Your task to perform on an android device: Go to Google Image 0: 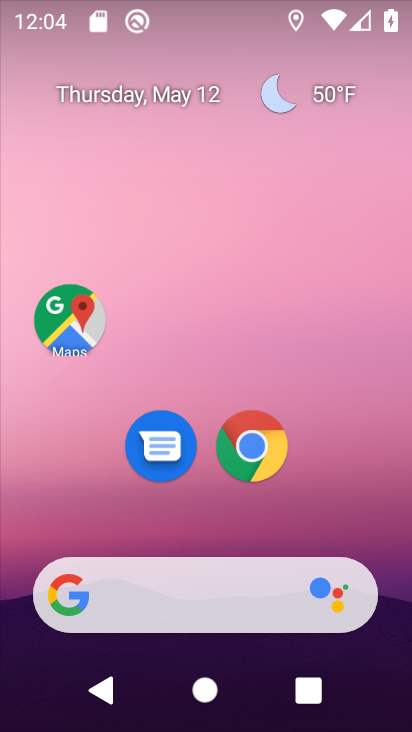
Step 0: drag from (290, 512) to (295, 93)
Your task to perform on an android device: Go to Google Image 1: 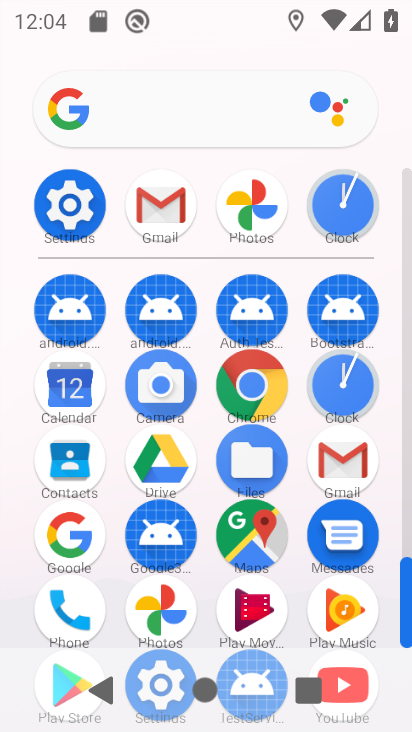
Step 1: click (68, 547)
Your task to perform on an android device: Go to Google Image 2: 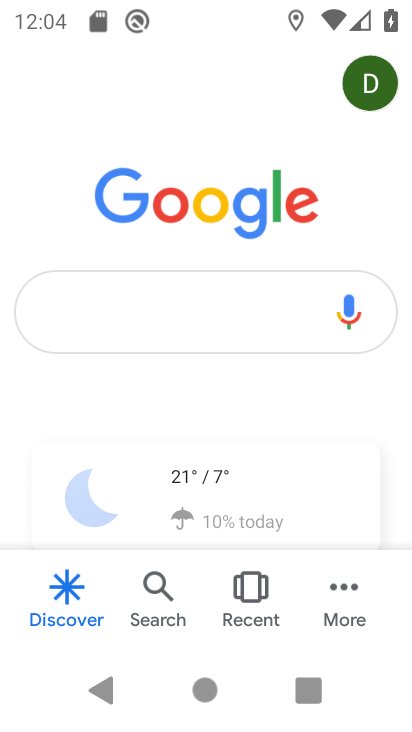
Step 2: task complete